Your task to perform on an android device: check out phone information Image 0: 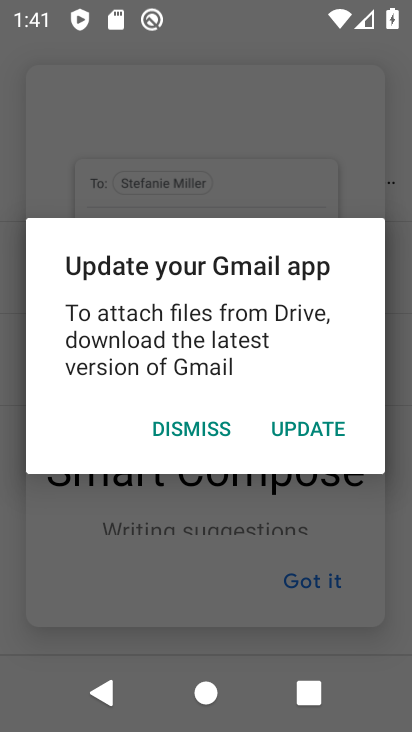
Step 0: press home button
Your task to perform on an android device: check out phone information Image 1: 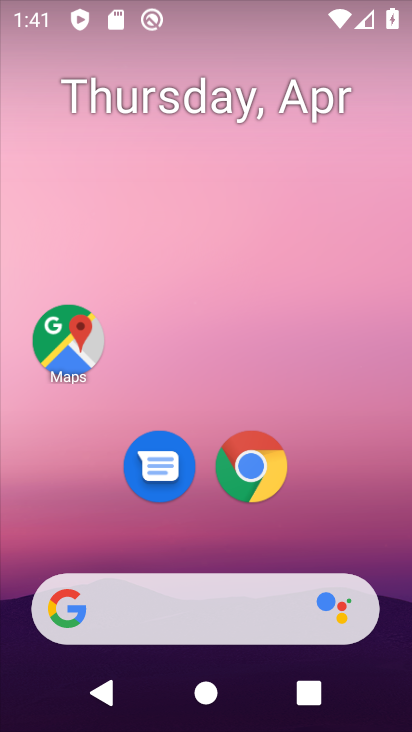
Step 1: drag from (396, 580) to (274, 16)
Your task to perform on an android device: check out phone information Image 2: 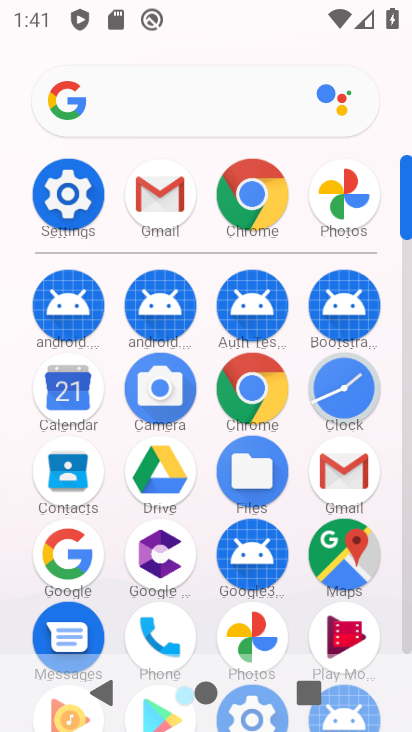
Step 2: drag from (15, 520) to (0, 201)
Your task to perform on an android device: check out phone information Image 3: 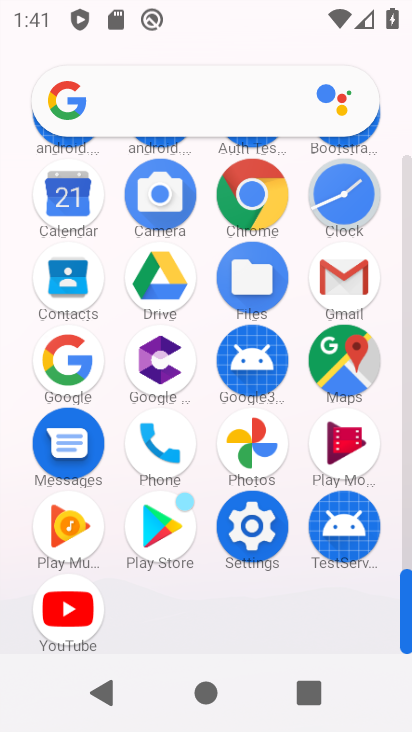
Step 3: click (252, 524)
Your task to perform on an android device: check out phone information Image 4: 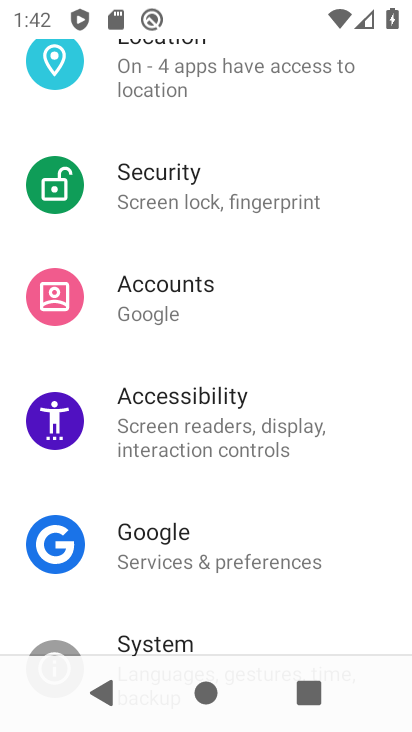
Step 4: drag from (320, 526) to (308, 159)
Your task to perform on an android device: check out phone information Image 5: 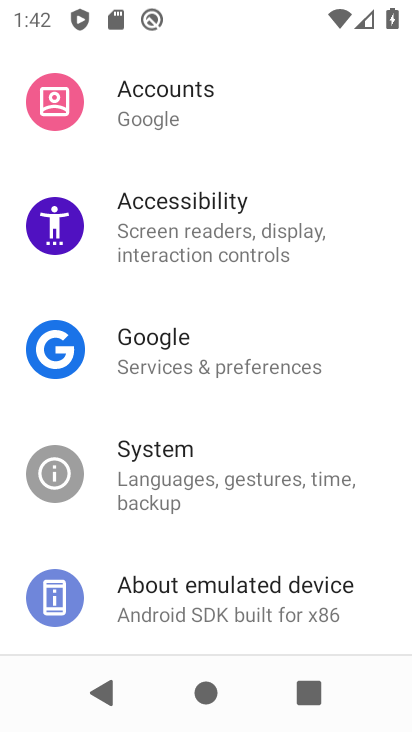
Step 5: drag from (299, 468) to (292, 121)
Your task to perform on an android device: check out phone information Image 6: 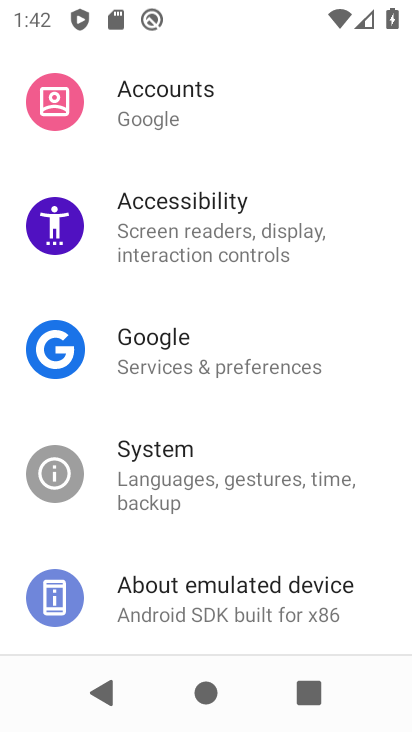
Step 6: click (228, 615)
Your task to perform on an android device: check out phone information Image 7: 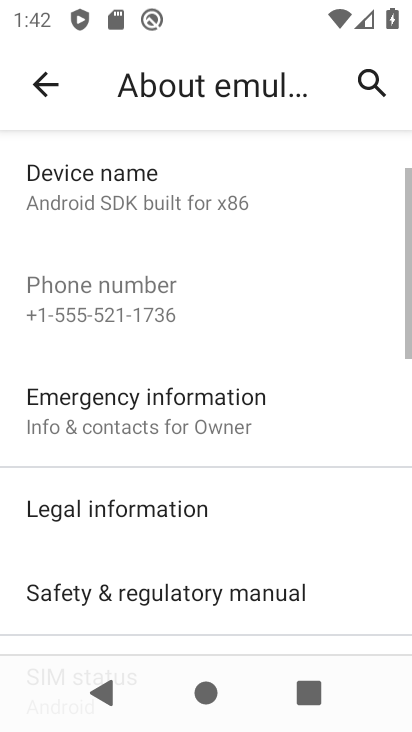
Step 7: task complete